Your task to perform on an android device: Go to CNN.com Image 0: 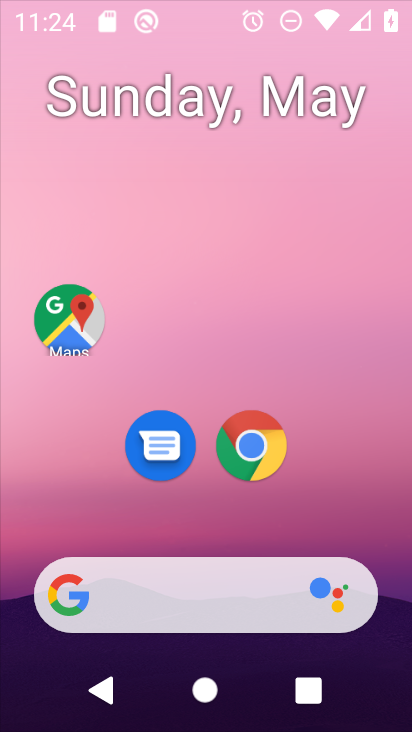
Step 0: drag from (256, 538) to (269, 198)
Your task to perform on an android device: Go to CNN.com Image 1: 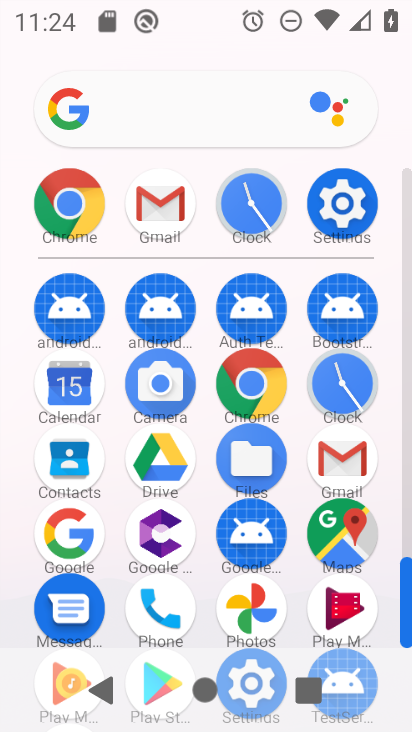
Step 1: click (88, 222)
Your task to perform on an android device: Go to CNN.com Image 2: 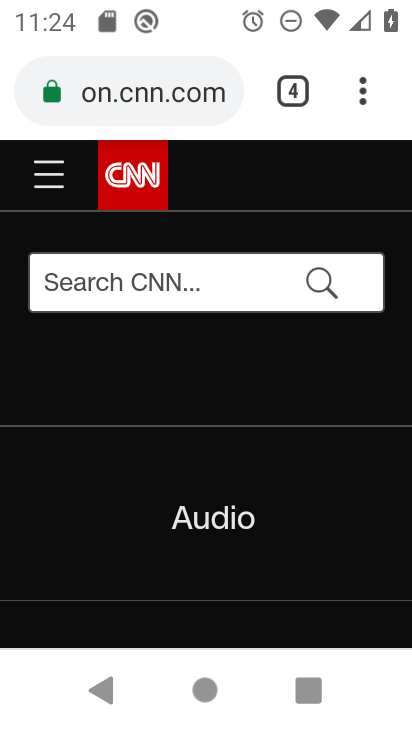
Step 2: task complete